Your task to perform on an android device: Go to Maps Image 0: 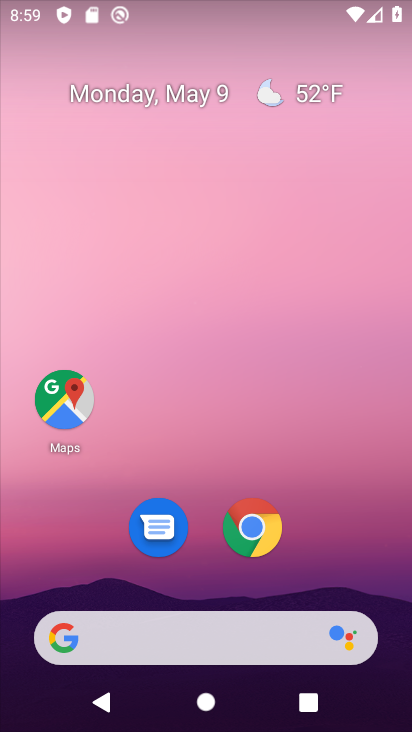
Step 0: drag from (340, 539) to (346, 155)
Your task to perform on an android device: Go to Maps Image 1: 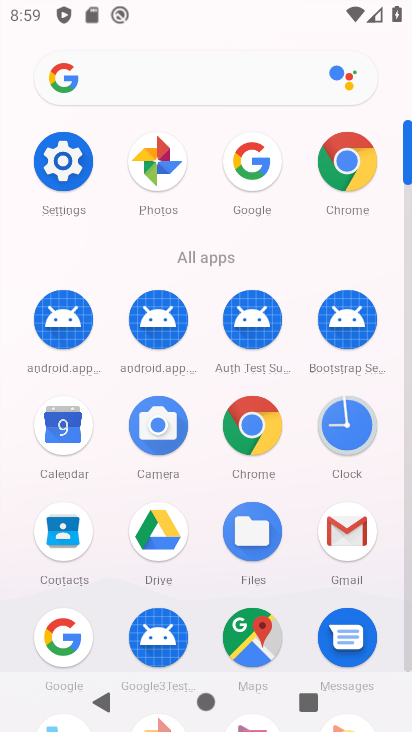
Step 1: click (252, 644)
Your task to perform on an android device: Go to Maps Image 2: 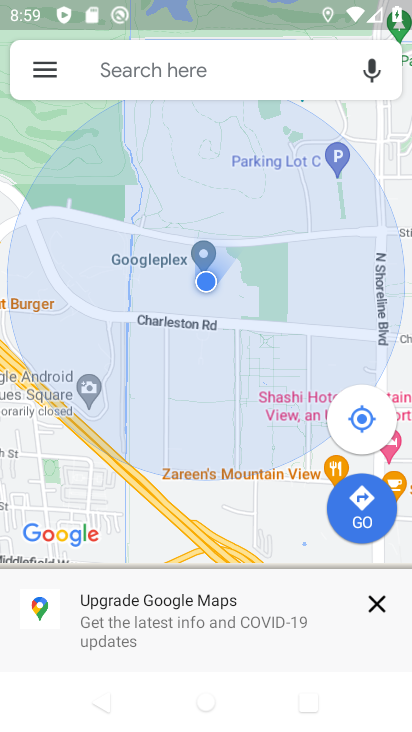
Step 2: task complete